Your task to perform on an android device: Open the phone app and click the voicemail tab. Image 0: 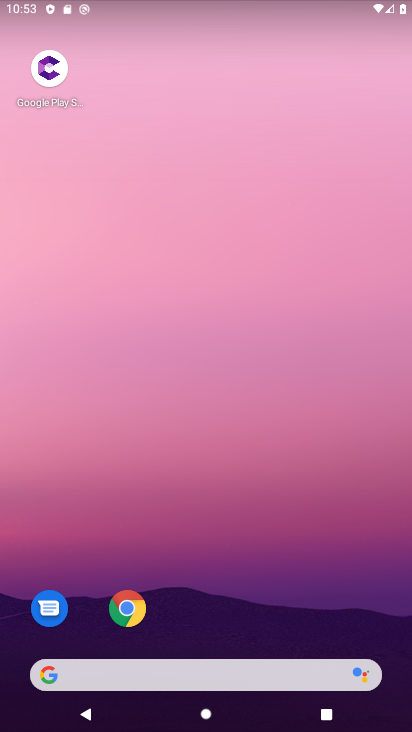
Step 0: drag from (236, 708) to (276, 204)
Your task to perform on an android device: Open the phone app and click the voicemail tab. Image 1: 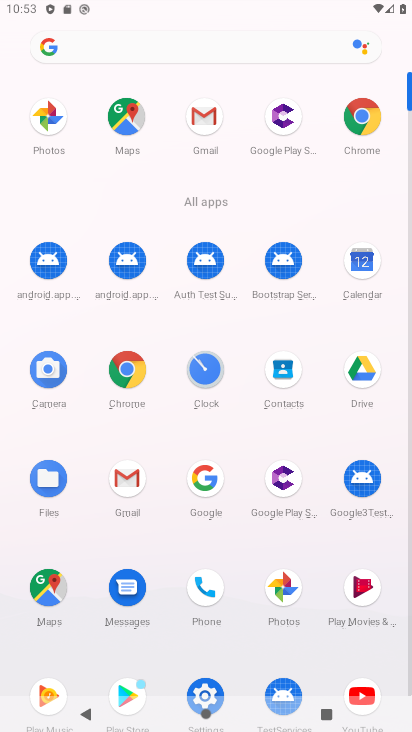
Step 1: click (214, 583)
Your task to perform on an android device: Open the phone app and click the voicemail tab. Image 2: 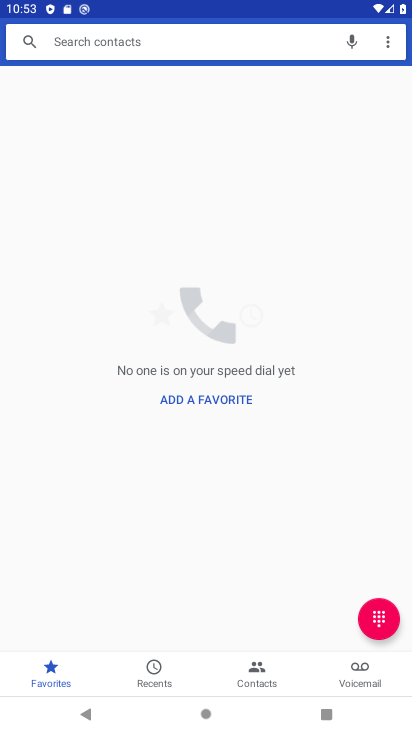
Step 2: click (350, 669)
Your task to perform on an android device: Open the phone app and click the voicemail tab. Image 3: 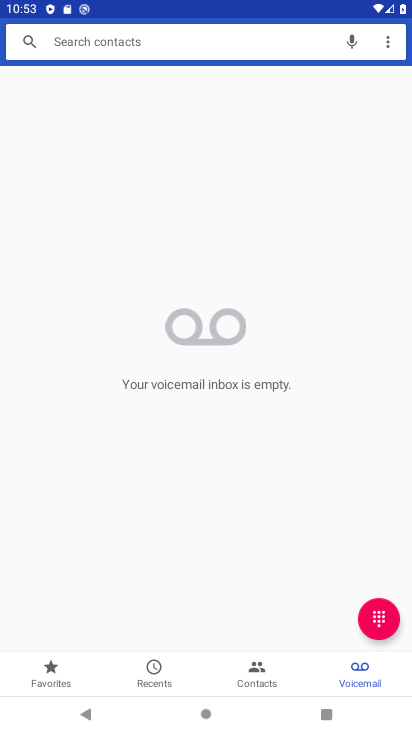
Step 3: task complete